Your task to perform on an android device: check android version Image 0: 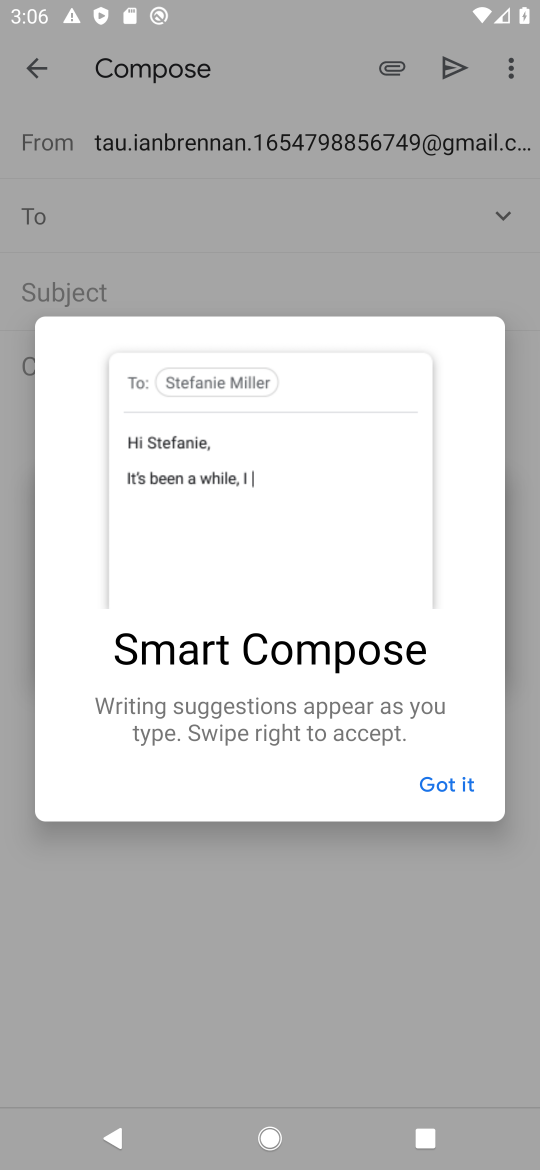
Step 0: press home button
Your task to perform on an android device: check android version Image 1: 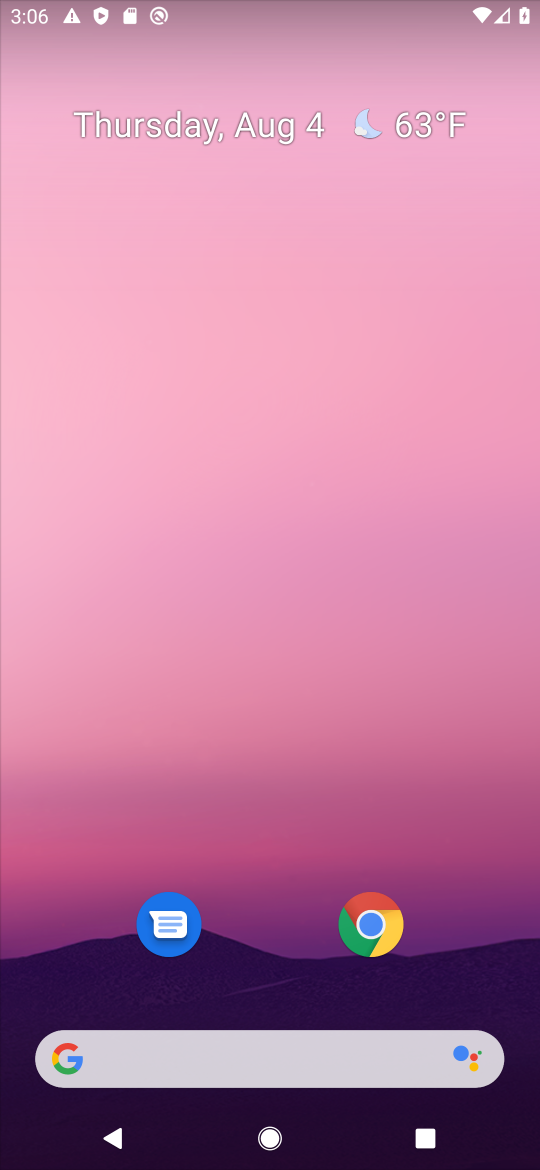
Step 1: drag from (272, 933) to (207, 20)
Your task to perform on an android device: check android version Image 2: 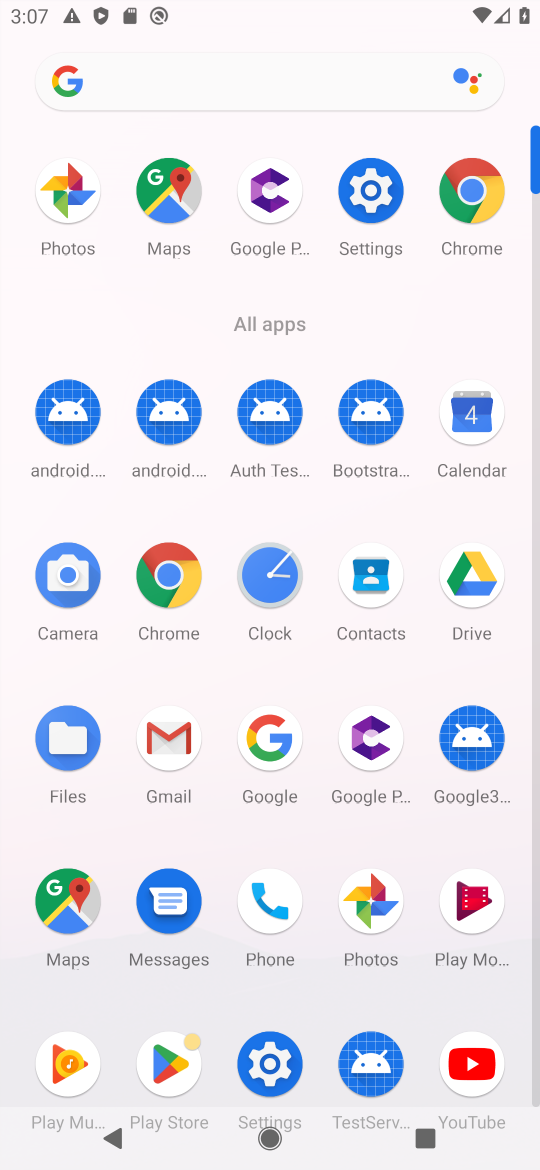
Step 2: click (379, 186)
Your task to perform on an android device: check android version Image 3: 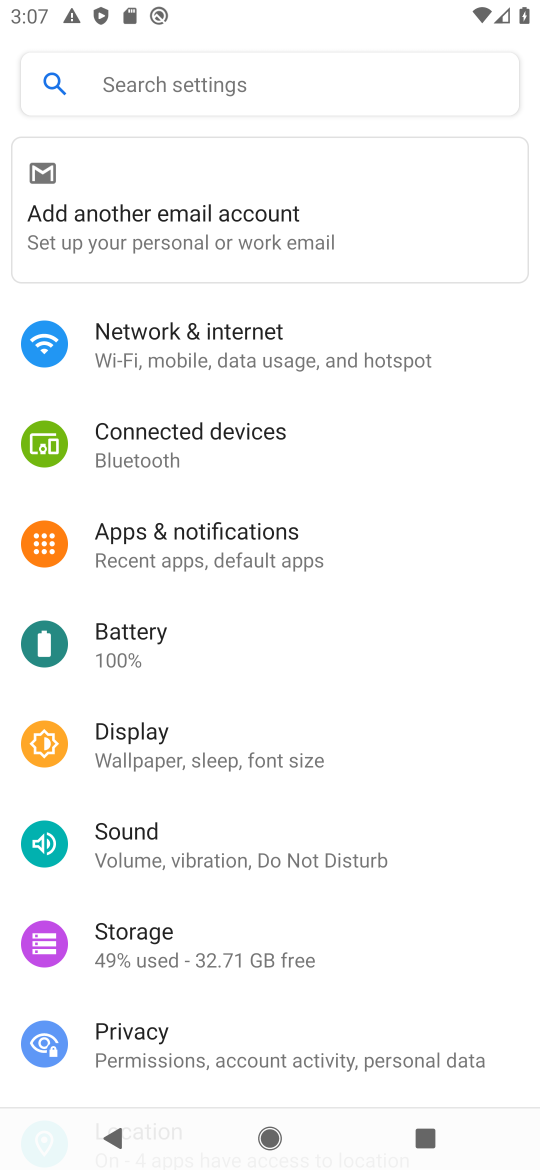
Step 3: drag from (294, 1018) to (250, 159)
Your task to perform on an android device: check android version Image 4: 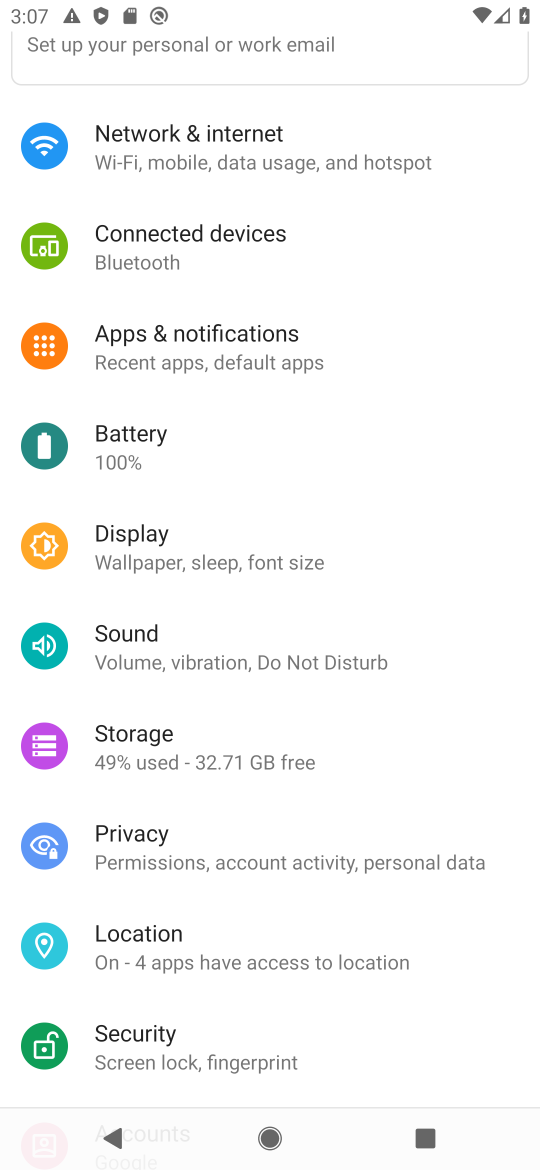
Step 4: drag from (279, 1013) to (246, 482)
Your task to perform on an android device: check android version Image 5: 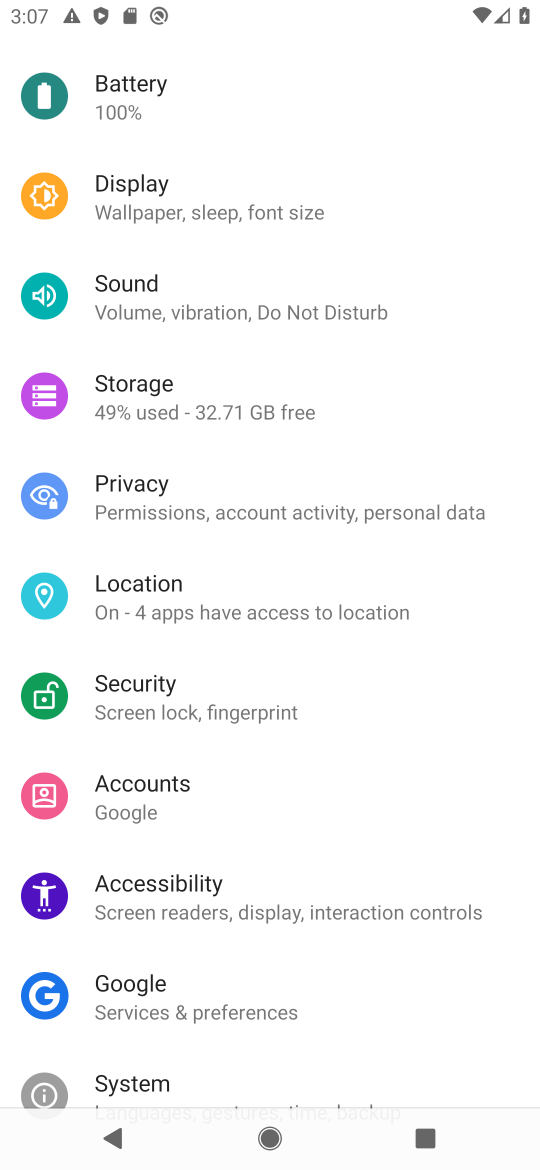
Step 5: drag from (274, 977) to (232, 346)
Your task to perform on an android device: check android version Image 6: 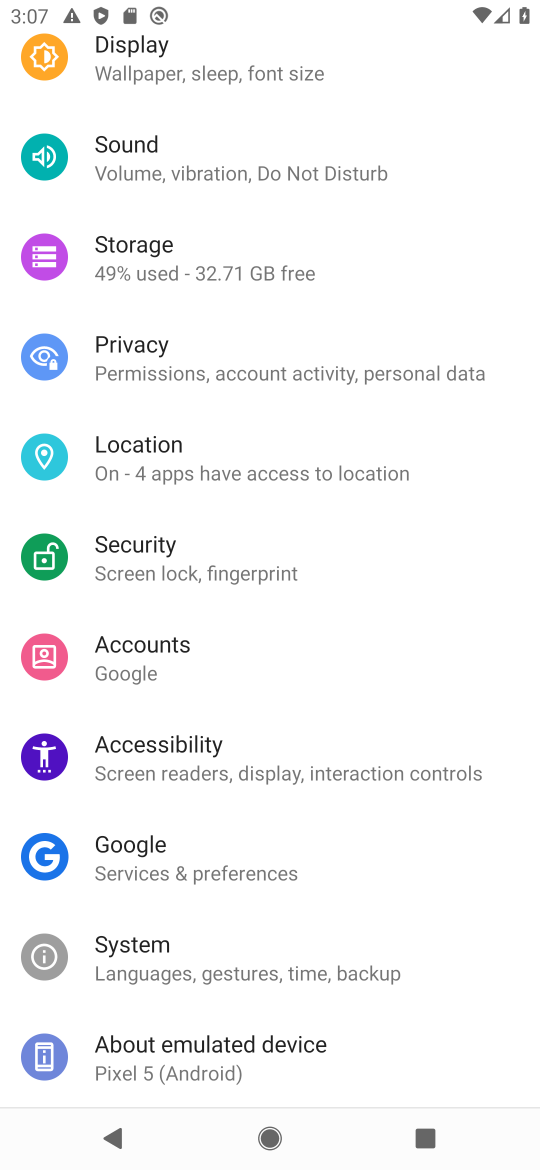
Step 6: click (161, 1038)
Your task to perform on an android device: check android version Image 7: 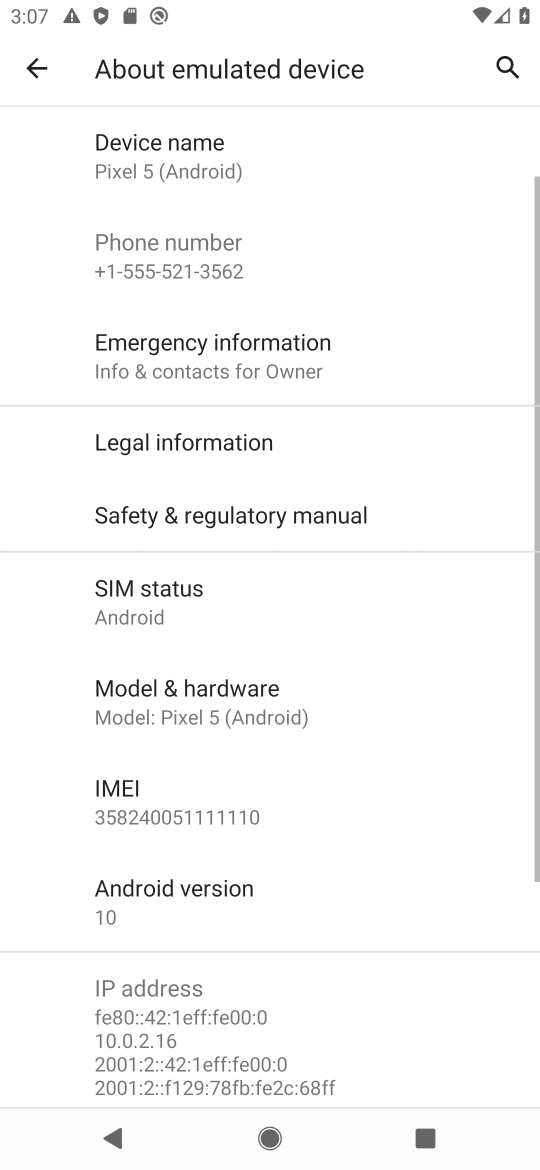
Step 7: click (202, 890)
Your task to perform on an android device: check android version Image 8: 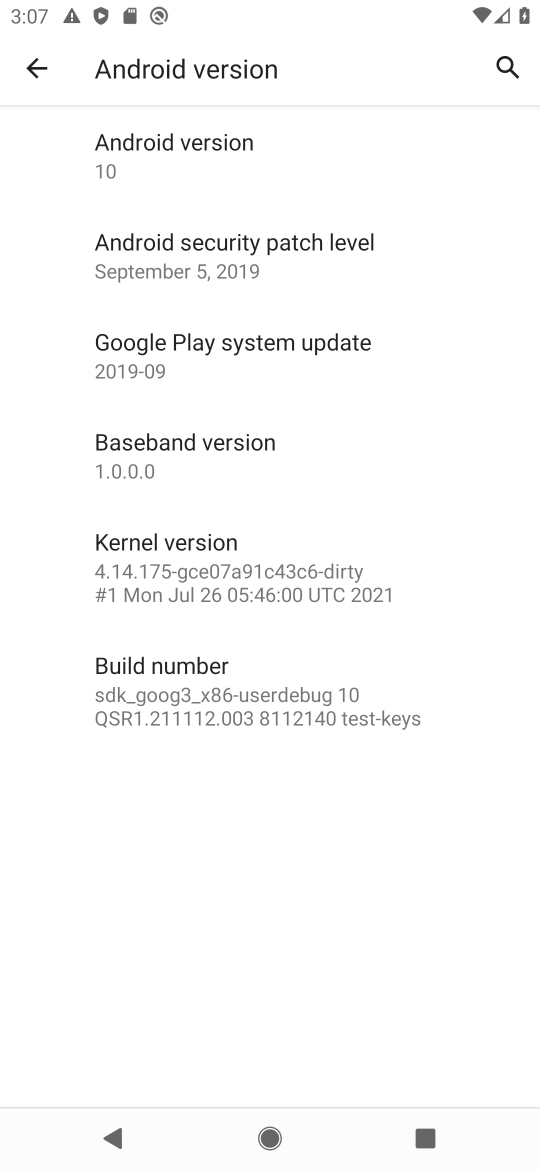
Step 8: task complete